Your task to perform on an android device: toggle data saver in the chrome app Image 0: 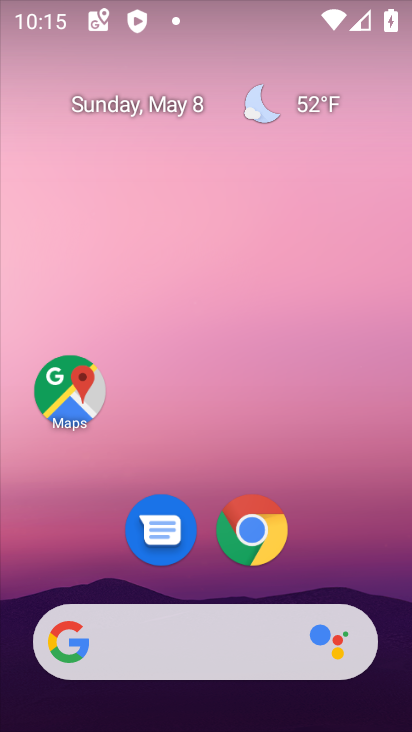
Step 0: drag from (374, 552) to (374, 192)
Your task to perform on an android device: toggle data saver in the chrome app Image 1: 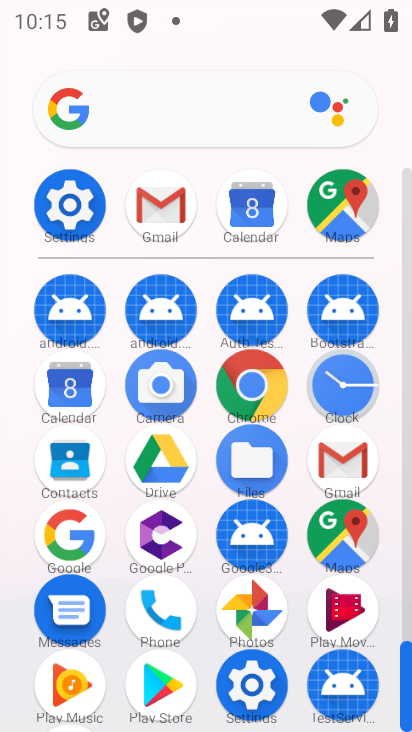
Step 1: click (241, 393)
Your task to perform on an android device: toggle data saver in the chrome app Image 2: 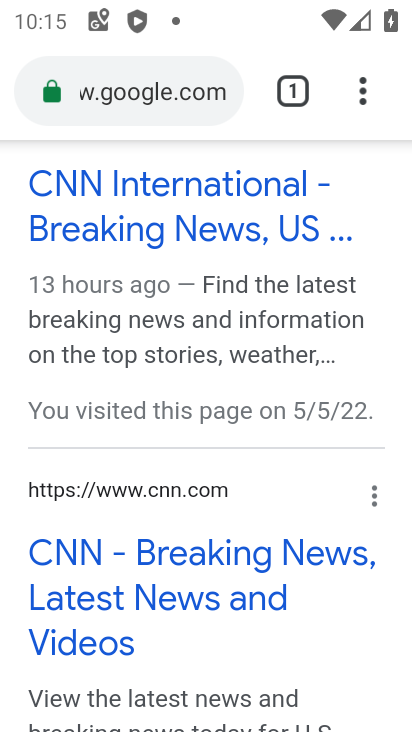
Step 2: drag from (239, 296) to (277, 625)
Your task to perform on an android device: toggle data saver in the chrome app Image 3: 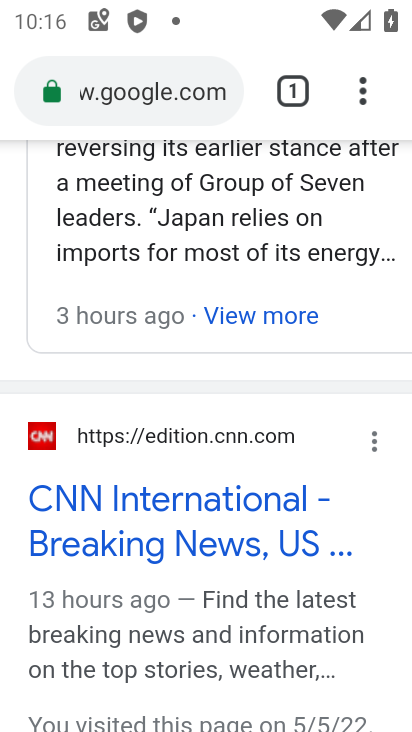
Step 3: drag from (354, 103) to (203, 567)
Your task to perform on an android device: toggle data saver in the chrome app Image 4: 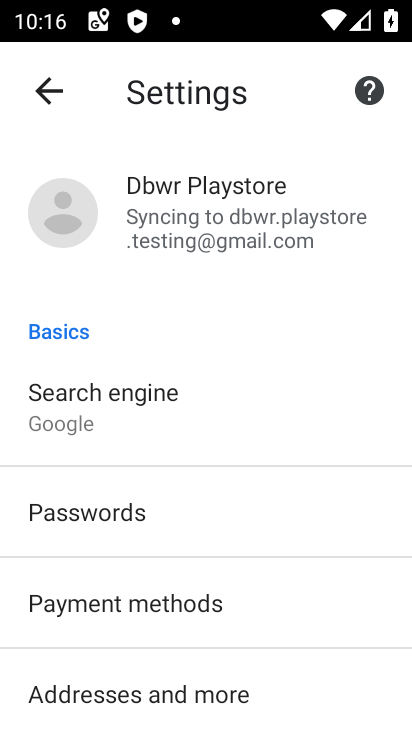
Step 4: drag from (296, 681) to (298, 340)
Your task to perform on an android device: toggle data saver in the chrome app Image 5: 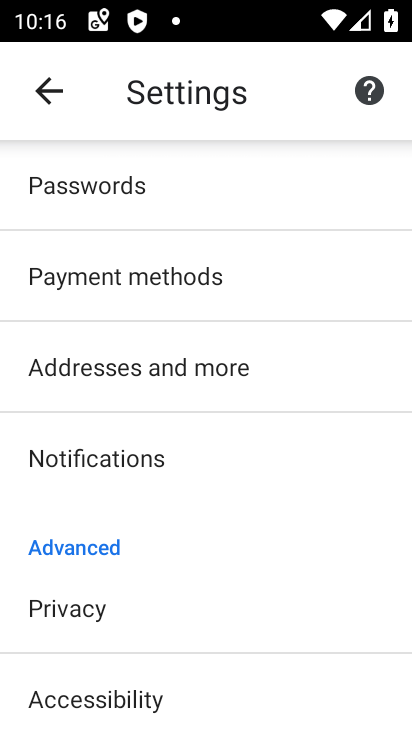
Step 5: drag from (243, 602) to (266, 205)
Your task to perform on an android device: toggle data saver in the chrome app Image 6: 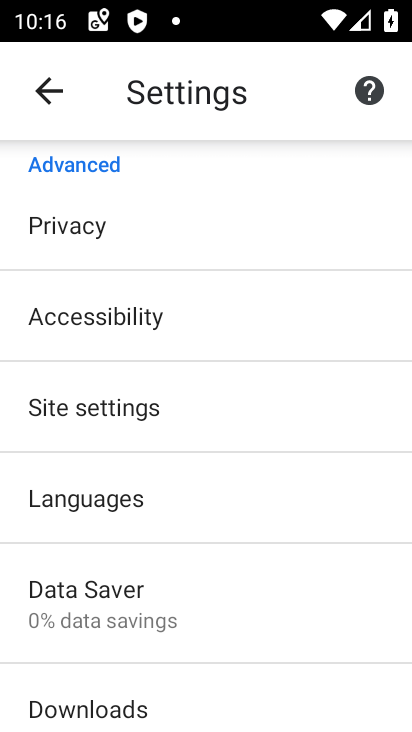
Step 6: drag from (227, 630) to (265, 333)
Your task to perform on an android device: toggle data saver in the chrome app Image 7: 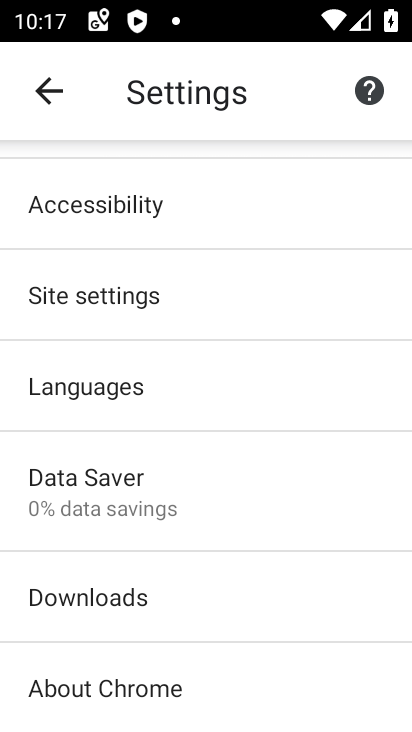
Step 7: click (136, 506)
Your task to perform on an android device: toggle data saver in the chrome app Image 8: 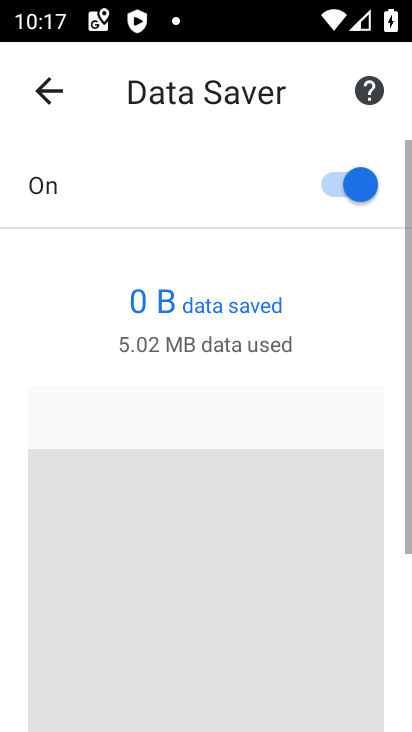
Step 8: click (340, 193)
Your task to perform on an android device: toggle data saver in the chrome app Image 9: 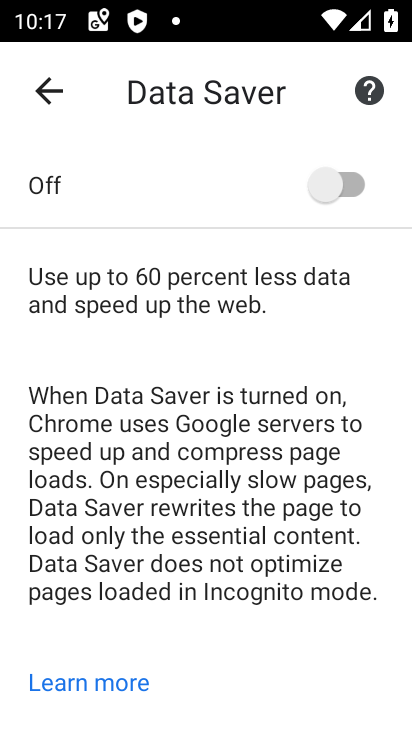
Step 9: task complete